Your task to perform on an android device: toggle sleep mode Image 0: 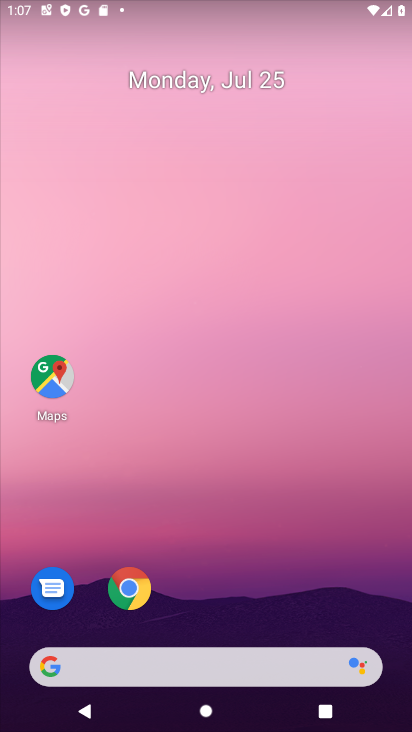
Step 0: drag from (191, 586) to (146, 174)
Your task to perform on an android device: toggle sleep mode Image 1: 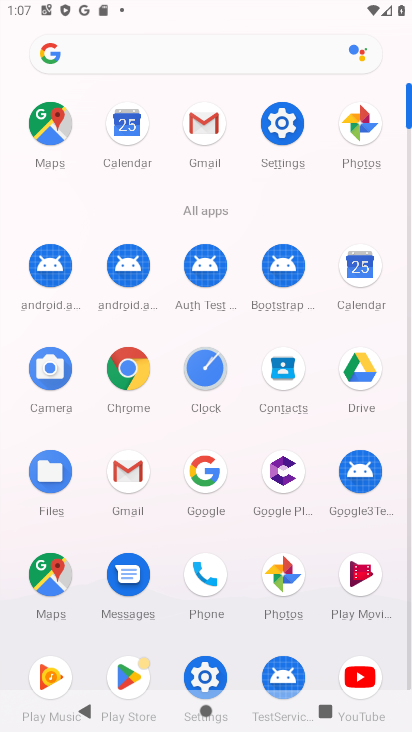
Step 1: click (276, 136)
Your task to perform on an android device: toggle sleep mode Image 2: 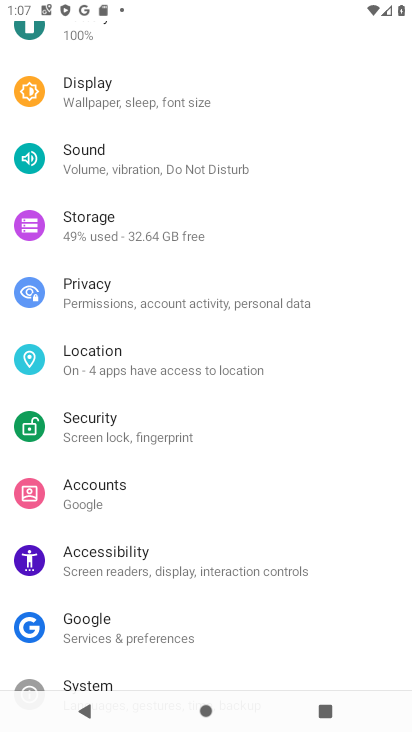
Step 2: task complete